Your task to perform on an android device: empty trash in google photos Image 0: 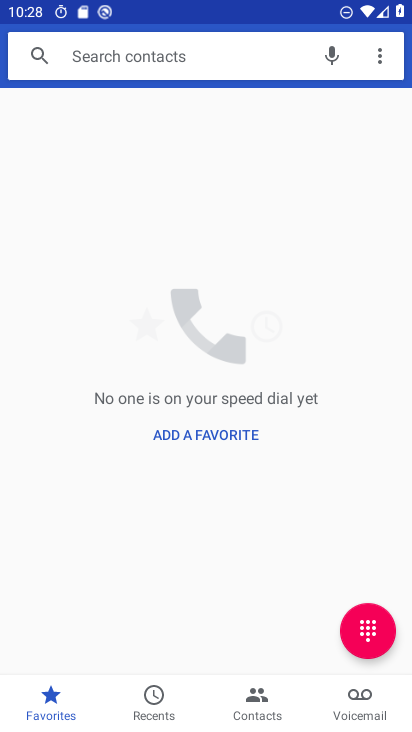
Step 0: press home button
Your task to perform on an android device: empty trash in google photos Image 1: 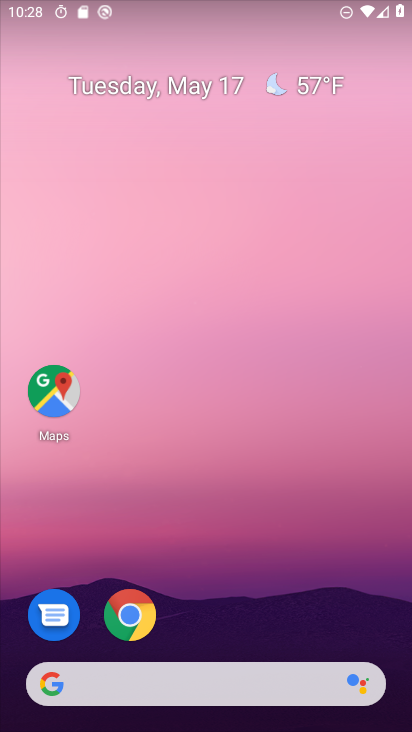
Step 1: drag from (263, 581) to (186, 88)
Your task to perform on an android device: empty trash in google photos Image 2: 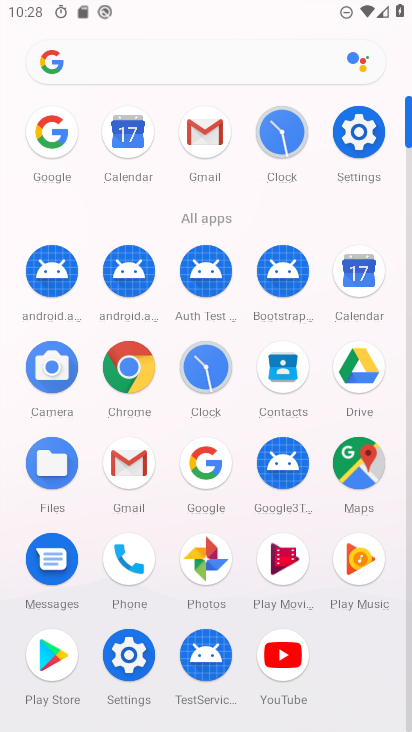
Step 2: click (209, 551)
Your task to perform on an android device: empty trash in google photos Image 3: 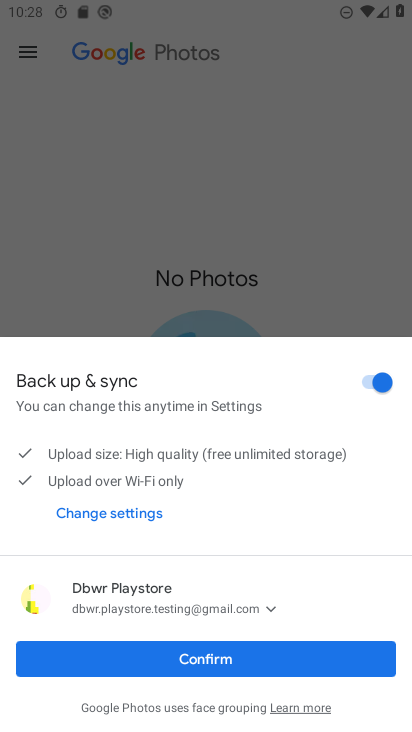
Step 3: click (275, 268)
Your task to perform on an android device: empty trash in google photos Image 4: 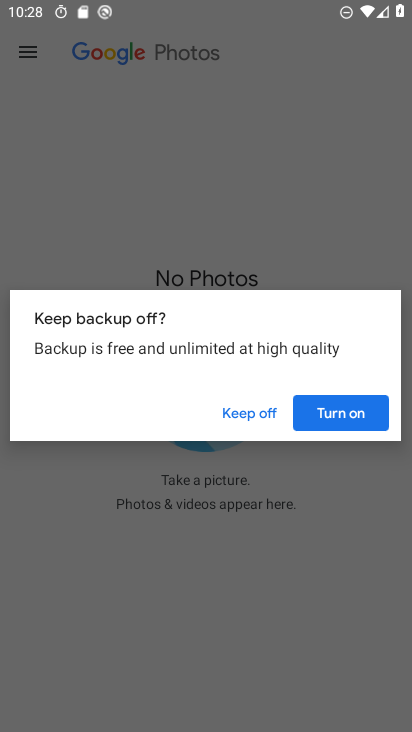
Step 4: click (248, 418)
Your task to perform on an android device: empty trash in google photos Image 5: 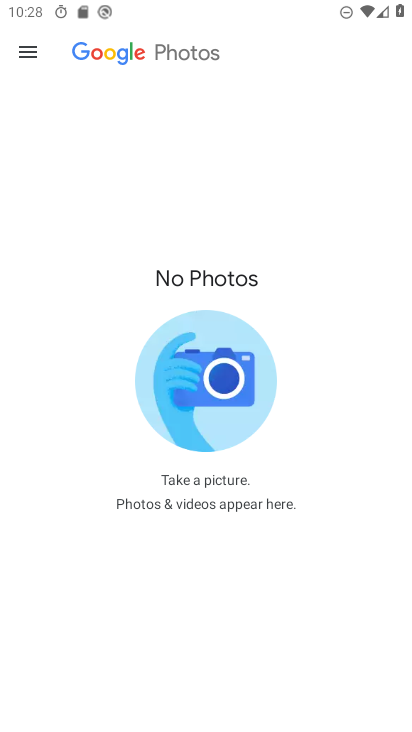
Step 5: click (32, 53)
Your task to perform on an android device: empty trash in google photos Image 6: 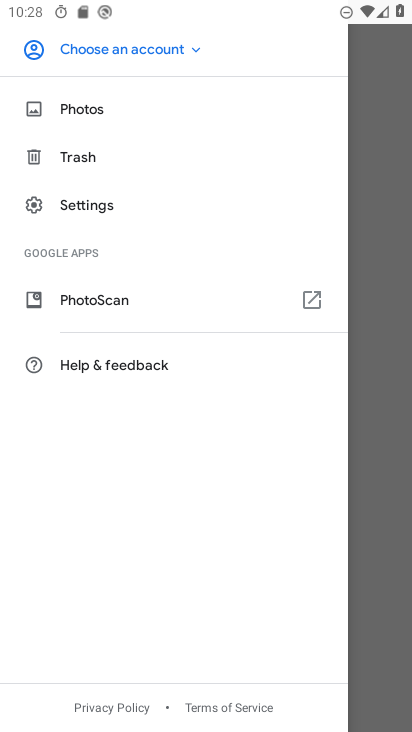
Step 6: click (134, 204)
Your task to perform on an android device: empty trash in google photos Image 7: 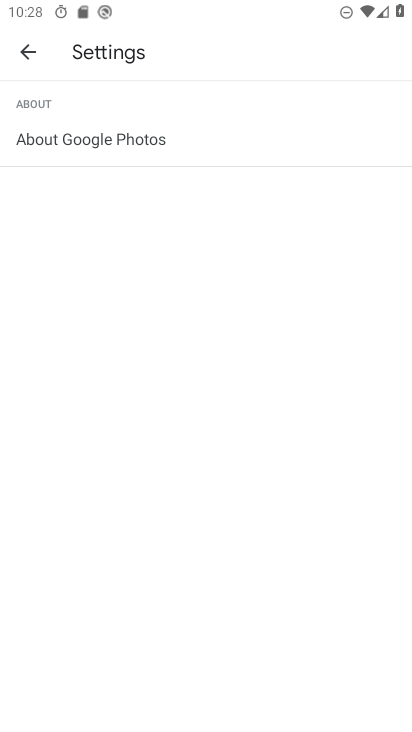
Step 7: click (24, 45)
Your task to perform on an android device: empty trash in google photos Image 8: 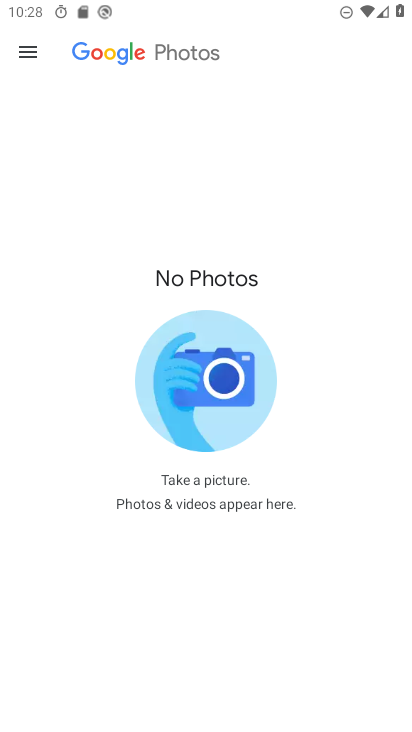
Step 8: click (23, 48)
Your task to perform on an android device: empty trash in google photos Image 9: 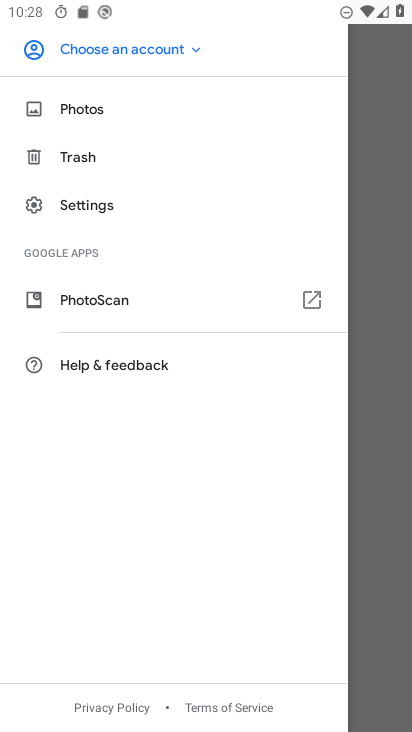
Step 9: click (77, 153)
Your task to perform on an android device: empty trash in google photos Image 10: 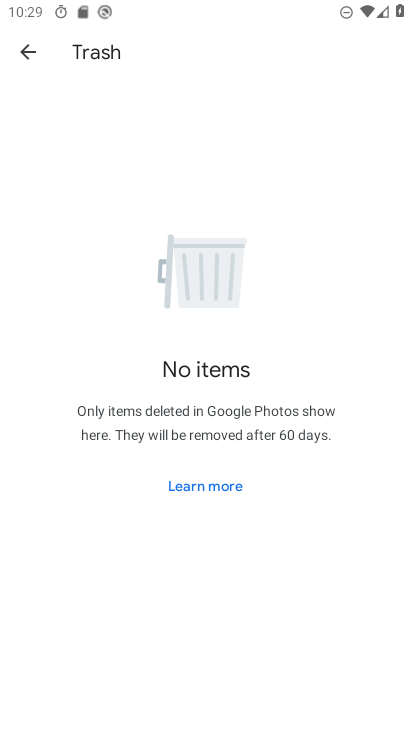
Step 10: task complete